Your task to perform on an android device: check data usage Image 0: 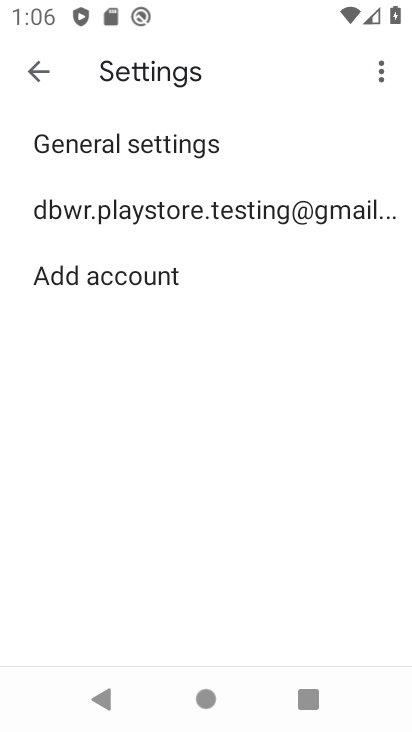
Step 0: press home button
Your task to perform on an android device: check data usage Image 1: 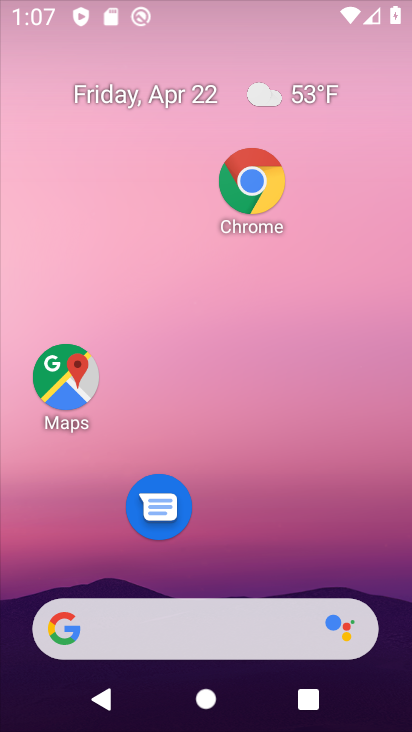
Step 1: drag from (241, 522) to (134, 24)
Your task to perform on an android device: check data usage Image 2: 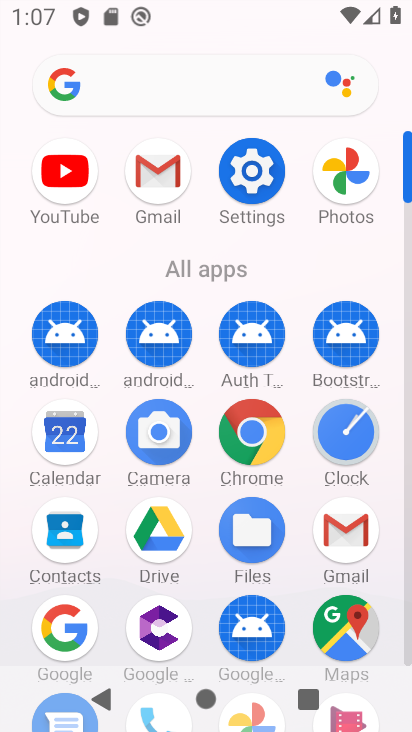
Step 2: click (246, 160)
Your task to perform on an android device: check data usage Image 3: 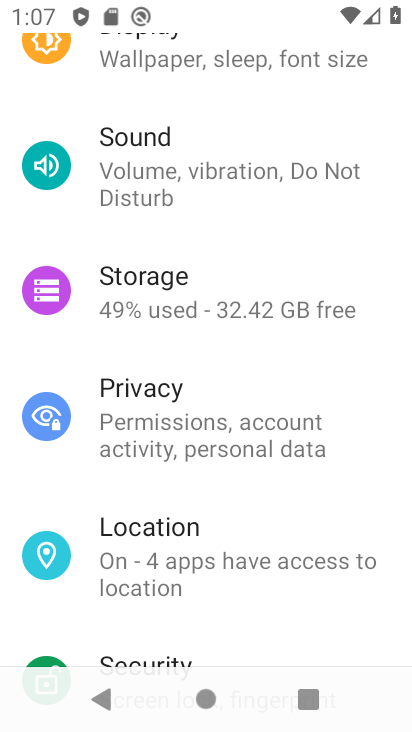
Step 3: drag from (191, 300) to (225, 711)
Your task to perform on an android device: check data usage Image 4: 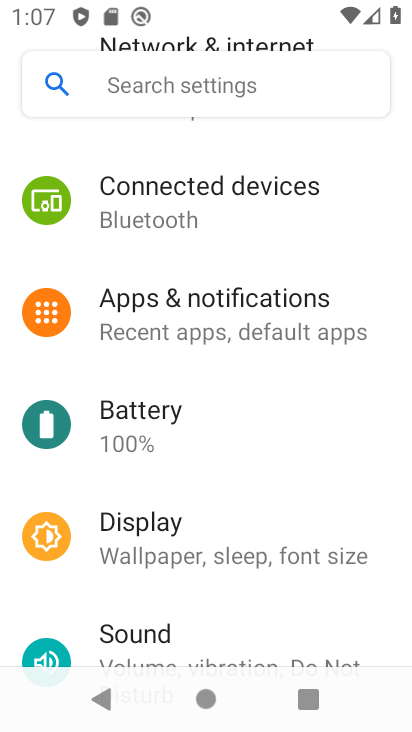
Step 4: drag from (243, 317) to (229, 624)
Your task to perform on an android device: check data usage Image 5: 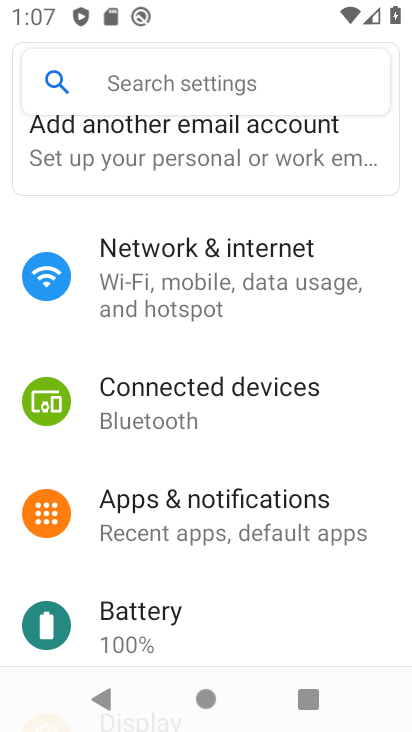
Step 5: click (227, 290)
Your task to perform on an android device: check data usage Image 6: 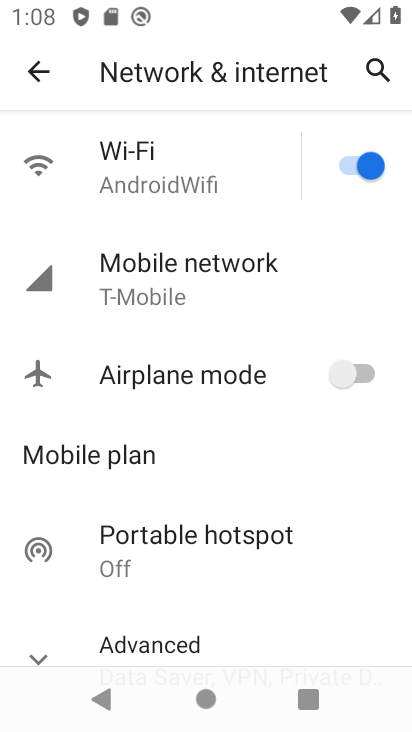
Step 6: drag from (201, 503) to (180, 302)
Your task to perform on an android device: check data usage Image 7: 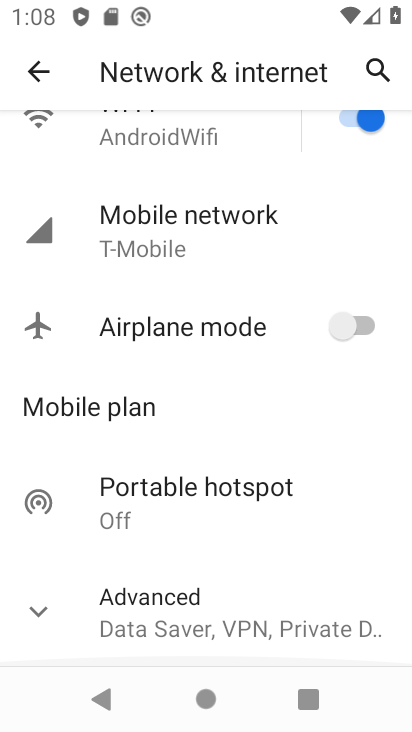
Step 7: click (181, 255)
Your task to perform on an android device: check data usage Image 8: 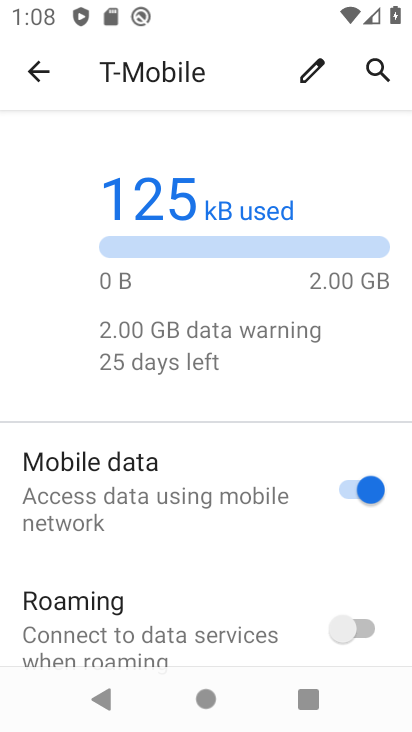
Step 8: click (144, 350)
Your task to perform on an android device: check data usage Image 9: 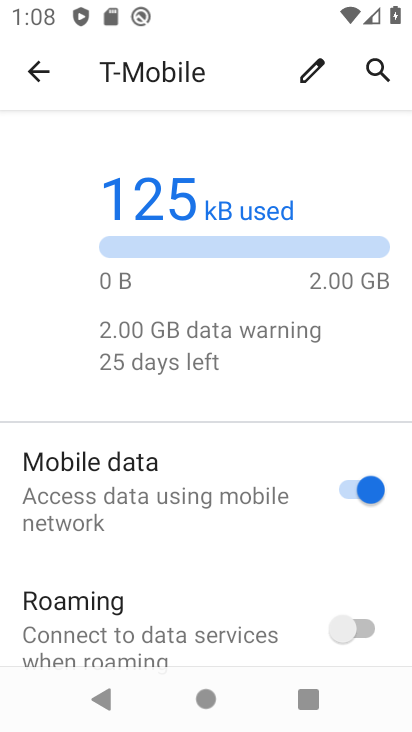
Step 9: task complete